Your task to perform on an android device: Open the map Image 0: 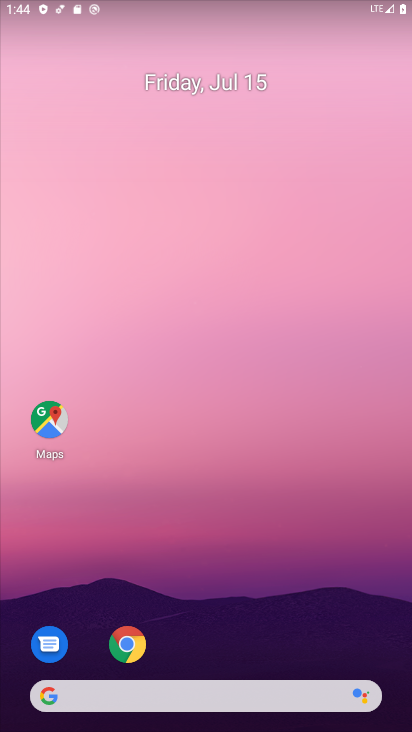
Step 0: drag from (375, 666) to (224, 46)
Your task to perform on an android device: Open the map Image 1: 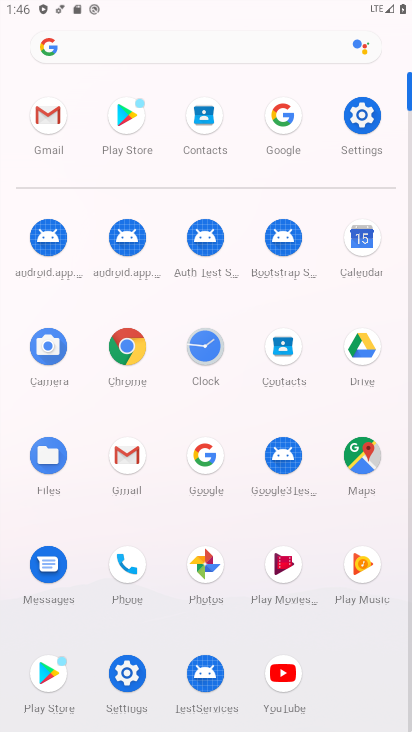
Step 1: click (346, 458)
Your task to perform on an android device: Open the map Image 2: 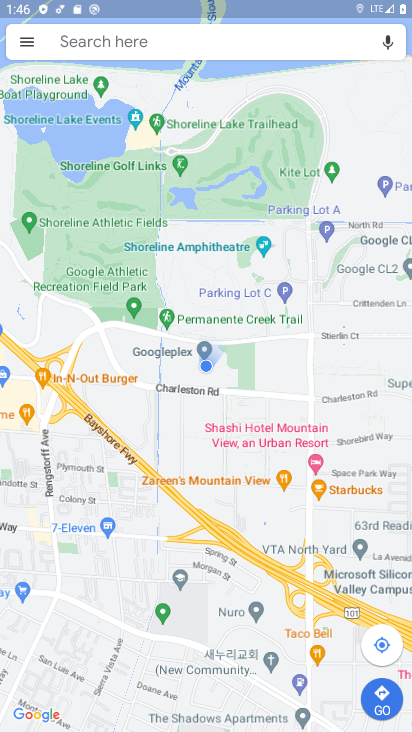
Step 2: task complete